Your task to perform on an android device: change timer sound Image 0: 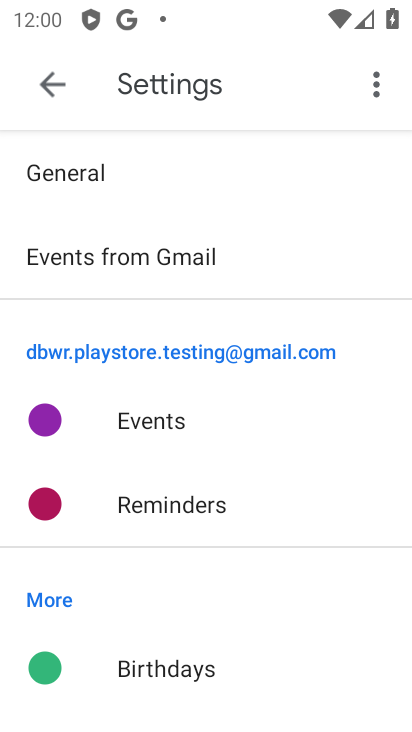
Step 0: press home button
Your task to perform on an android device: change timer sound Image 1: 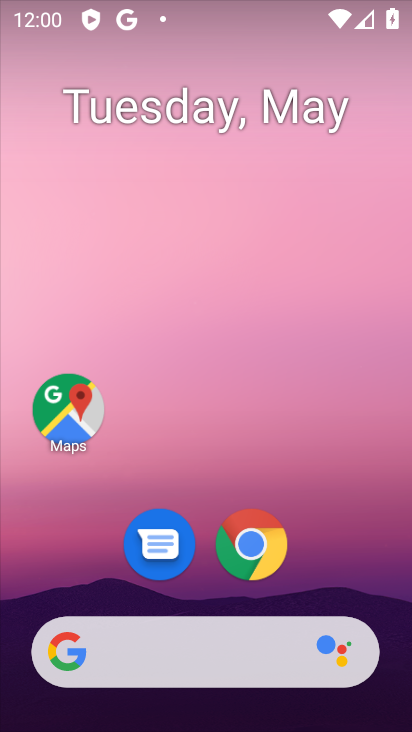
Step 1: drag from (200, 596) to (213, 140)
Your task to perform on an android device: change timer sound Image 2: 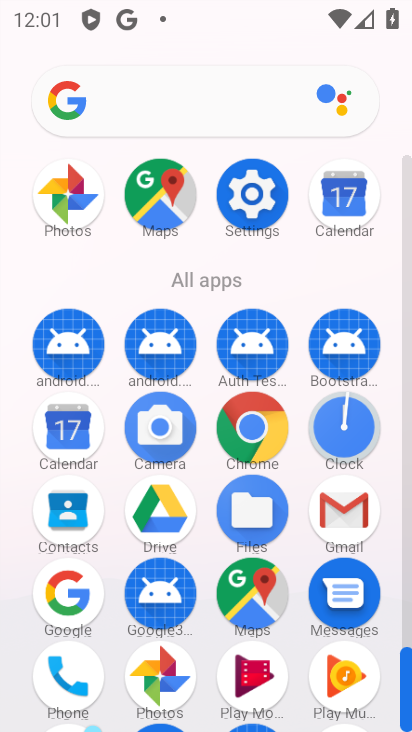
Step 2: click (339, 450)
Your task to perform on an android device: change timer sound Image 3: 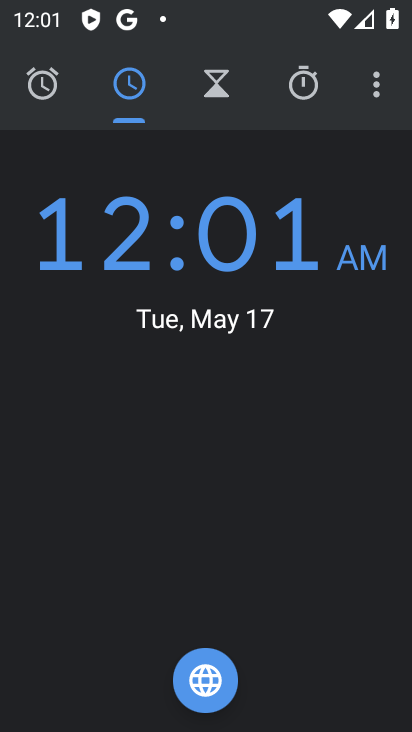
Step 3: click (368, 80)
Your task to perform on an android device: change timer sound Image 4: 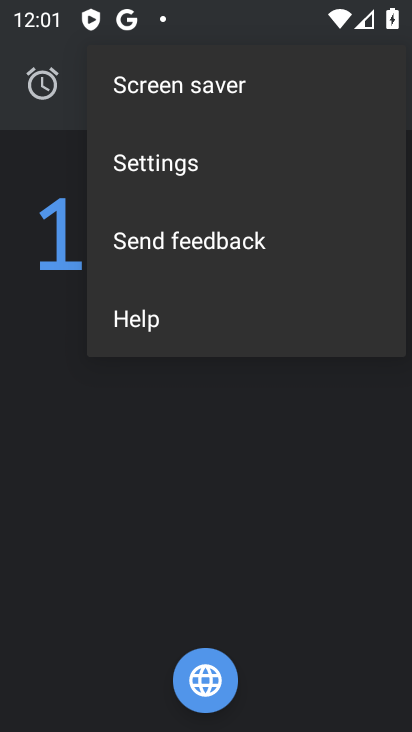
Step 4: click (132, 170)
Your task to perform on an android device: change timer sound Image 5: 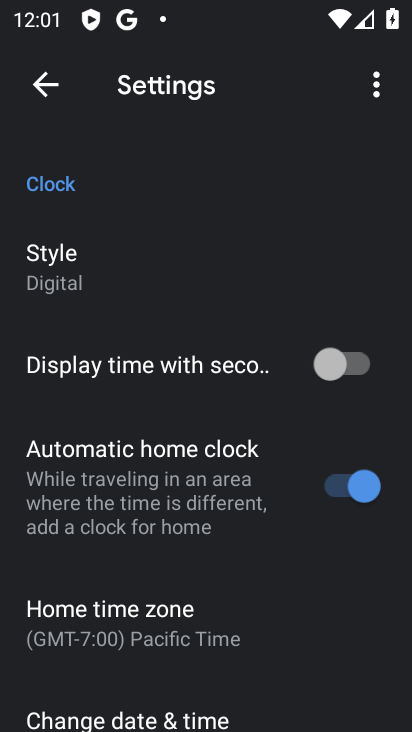
Step 5: drag from (171, 615) to (239, 263)
Your task to perform on an android device: change timer sound Image 6: 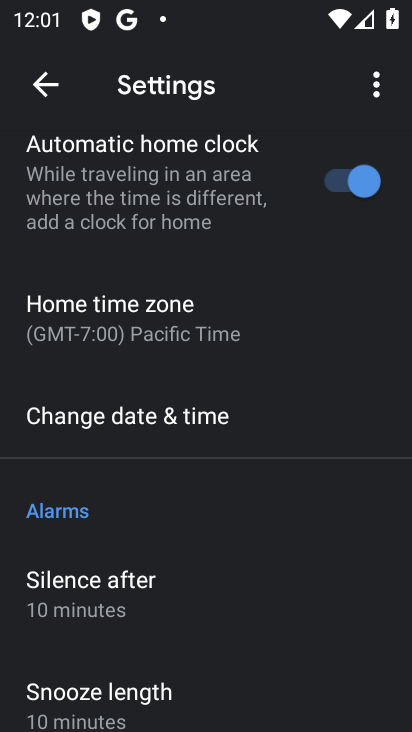
Step 6: drag from (235, 651) to (259, 399)
Your task to perform on an android device: change timer sound Image 7: 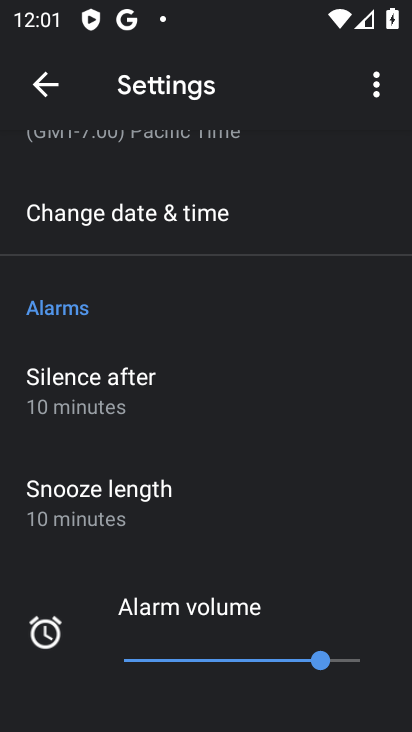
Step 7: drag from (206, 499) to (246, 295)
Your task to perform on an android device: change timer sound Image 8: 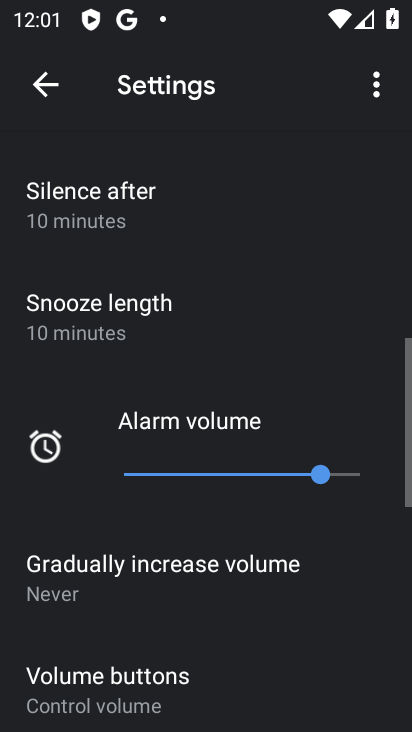
Step 8: drag from (216, 563) to (246, 265)
Your task to perform on an android device: change timer sound Image 9: 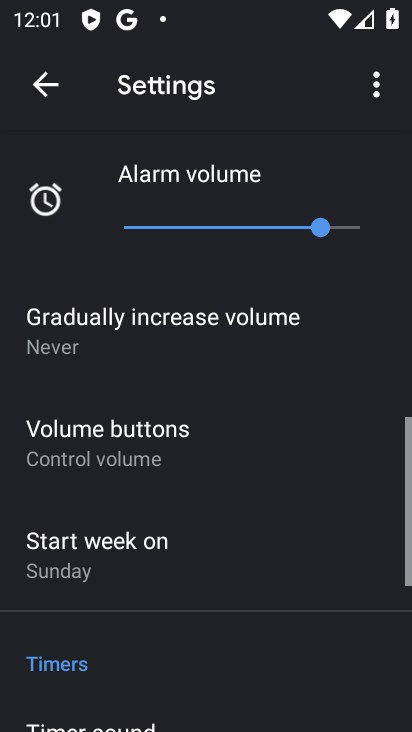
Step 9: drag from (215, 561) to (233, 335)
Your task to perform on an android device: change timer sound Image 10: 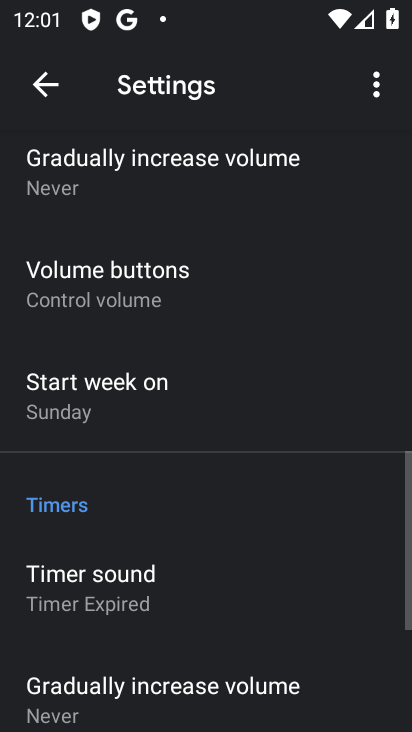
Step 10: drag from (169, 647) to (212, 479)
Your task to perform on an android device: change timer sound Image 11: 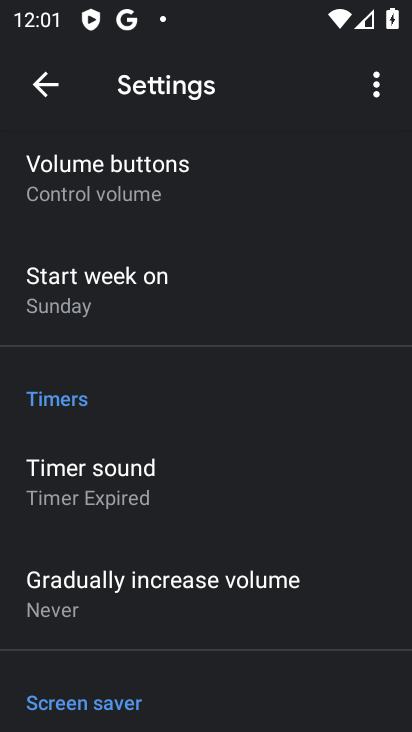
Step 11: click (137, 451)
Your task to perform on an android device: change timer sound Image 12: 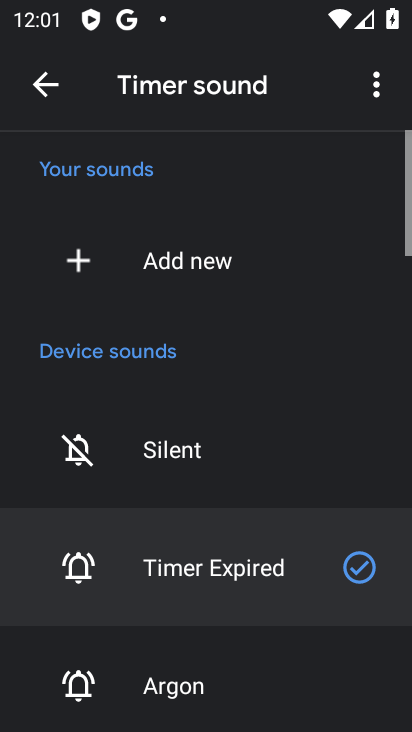
Step 12: click (234, 684)
Your task to perform on an android device: change timer sound Image 13: 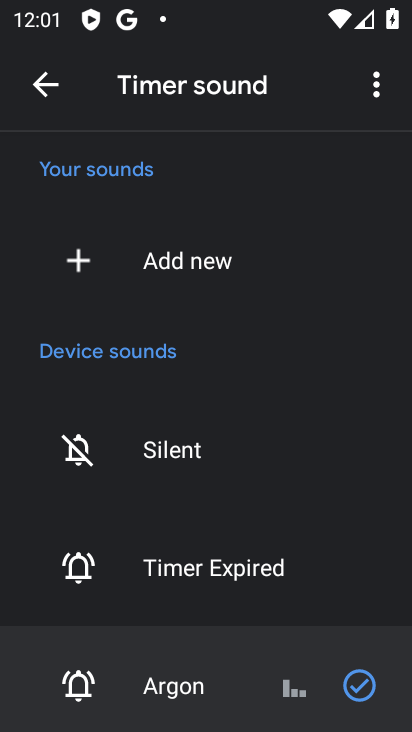
Step 13: task complete